Your task to perform on an android device: change text size in settings app Image 0: 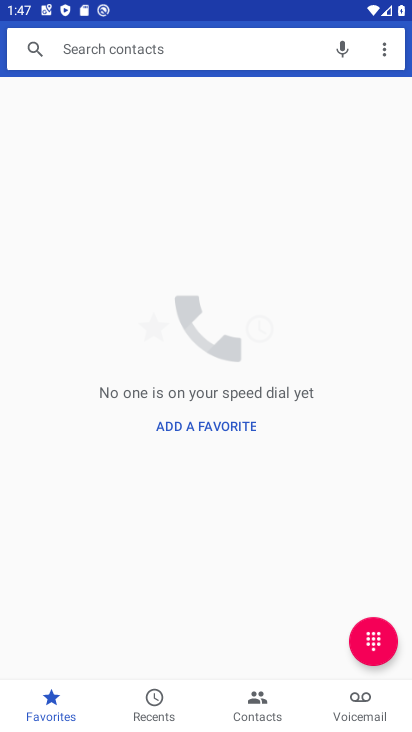
Step 0: press home button
Your task to perform on an android device: change text size in settings app Image 1: 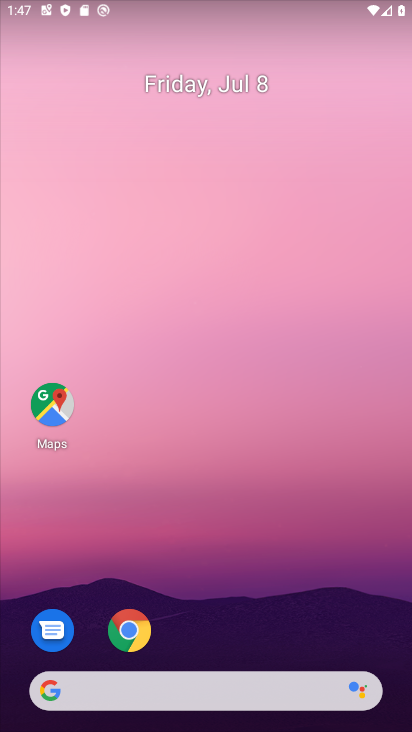
Step 1: drag from (200, 540) to (171, 11)
Your task to perform on an android device: change text size in settings app Image 2: 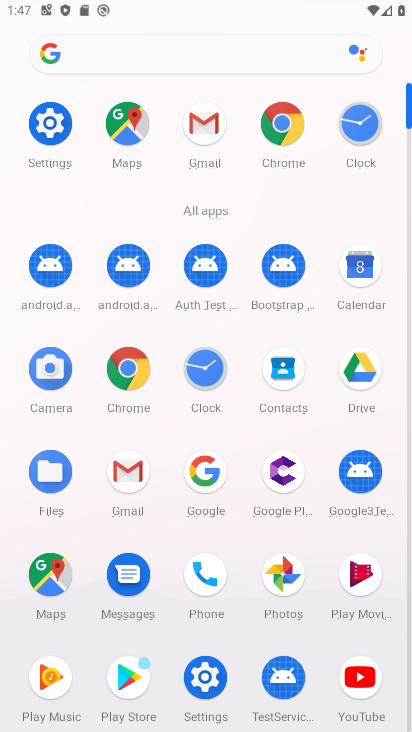
Step 2: click (45, 115)
Your task to perform on an android device: change text size in settings app Image 3: 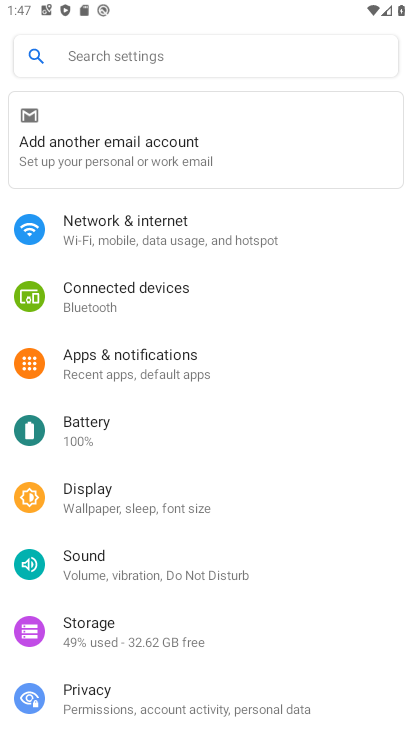
Step 3: click (111, 487)
Your task to perform on an android device: change text size in settings app Image 4: 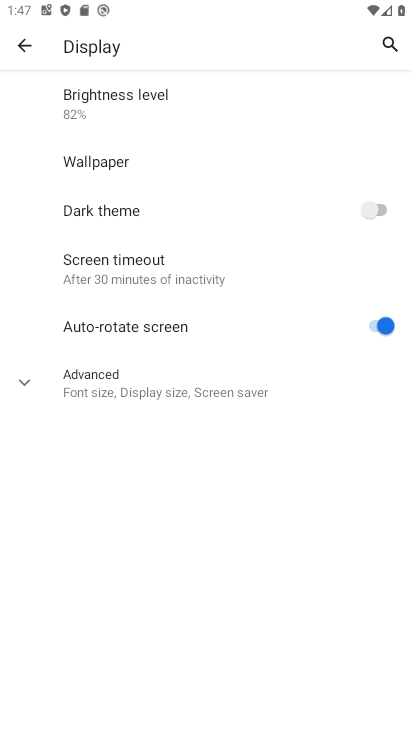
Step 4: click (18, 373)
Your task to perform on an android device: change text size in settings app Image 5: 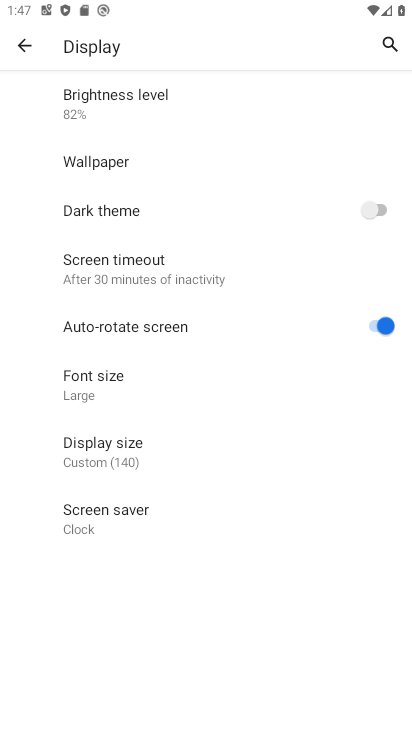
Step 5: click (108, 381)
Your task to perform on an android device: change text size in settings app Image 6: 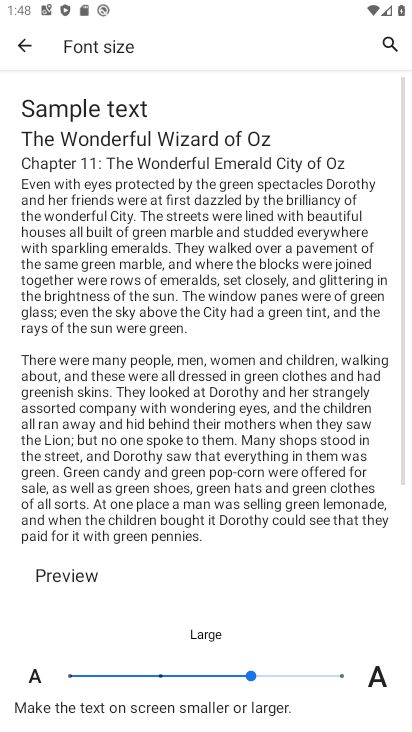
Step 6: click (338, 677)
Your task to perform on an android device: change text size in settings app Image 7: 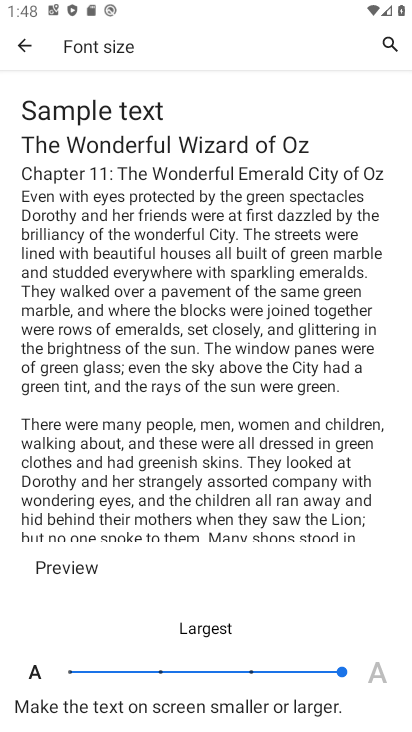
Step 7: task complete